Your task to perform on an android device: open the mobile data screen to see how much data has been used Image 0: 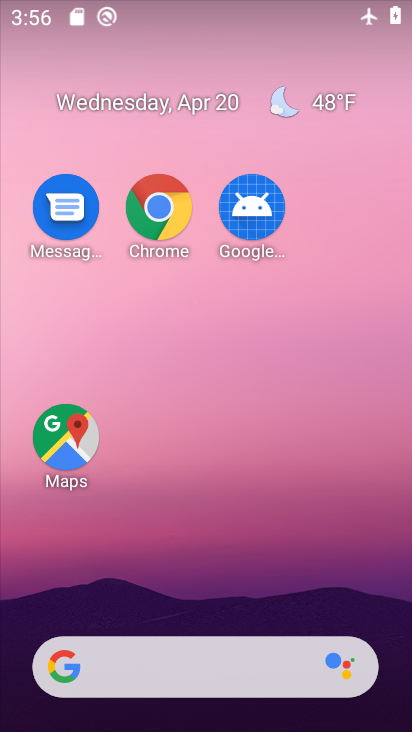
Step 0: click (205, 293)
Your task to perform on an android device: open the mobile data screen to see how much data has been used Image 1: 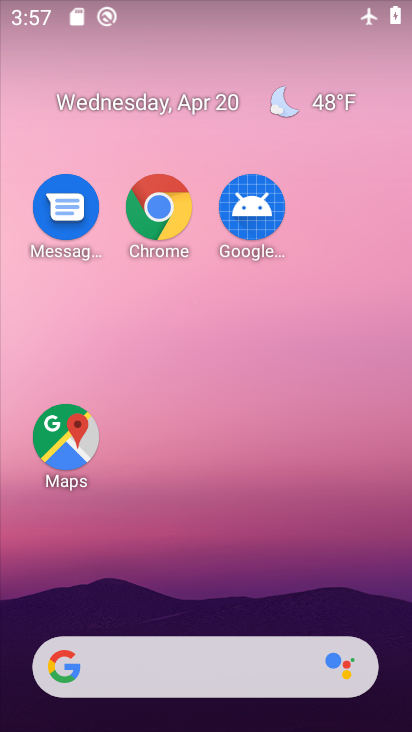
Step 1: drag from (266, 486) to (278, 325)
Your task to perform on an android device: open the mobile data screen to see how much data has been used Image 2: 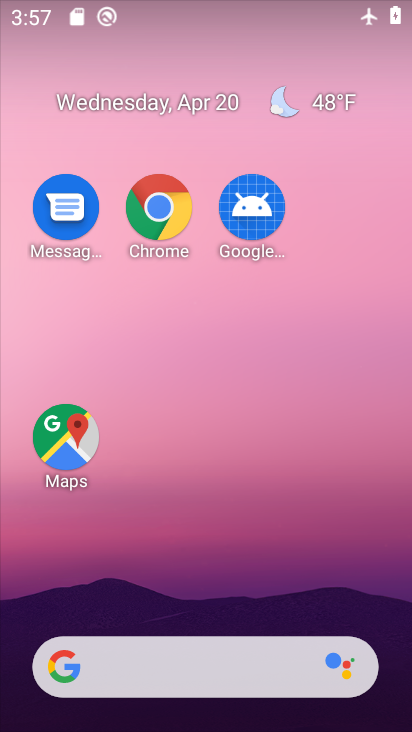
Step 2: drag from (249, 489) to (255, 245)
Your task to perform on an android device: open the mobile data screen to see how much data has been used Image 3: 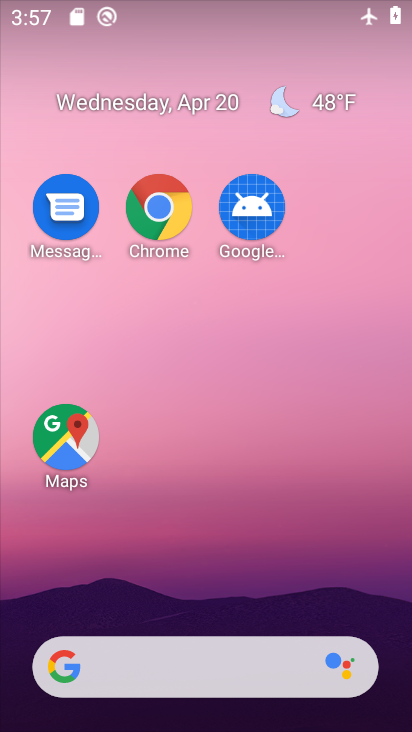
Step 3: drag from (259, 577) to (278, 188)
Your task to perform on an android device: open the mobile data screen to see how much data has been used Image 4: 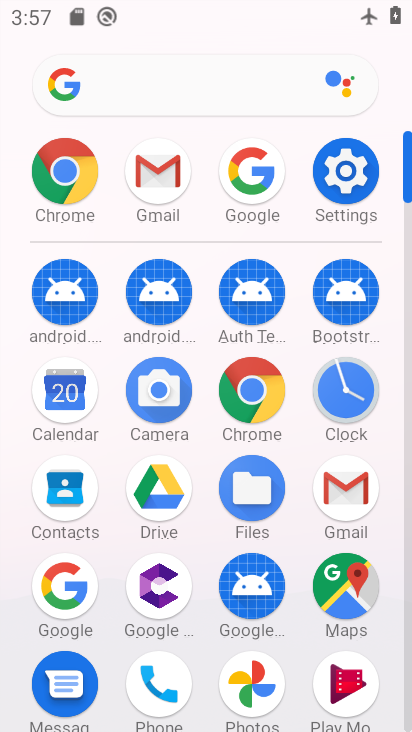
Step 4: click (334, 188)
Your task to perform on an android device: open the mobile data screen to see how much data has been used Image 5: 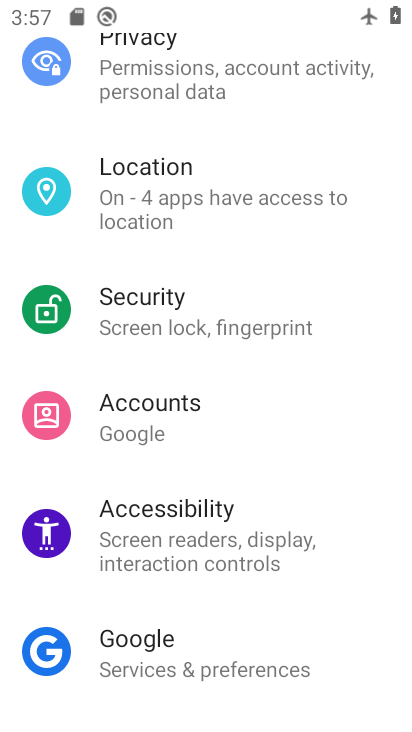
Step 5: drag from (240, 173) to (192, 704)
Your task to perform on an android device: open the mobile data screen to see how much data has been used Image 6: 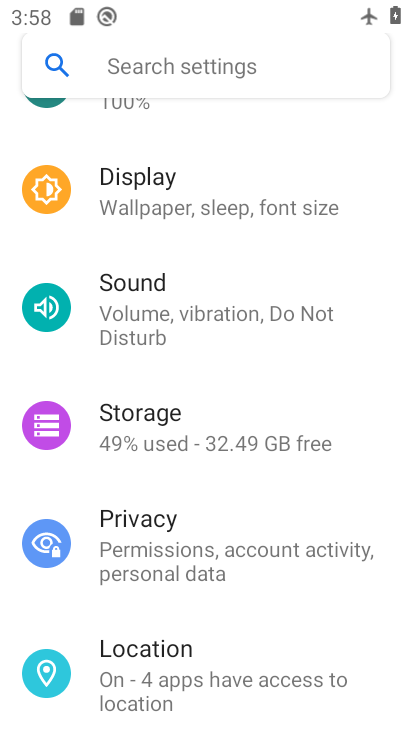
Step 6: drag from (218, 196) to (229, 588)
Your task to perform on an android device: open the mobile data screen to see how much data has been used Image 7: 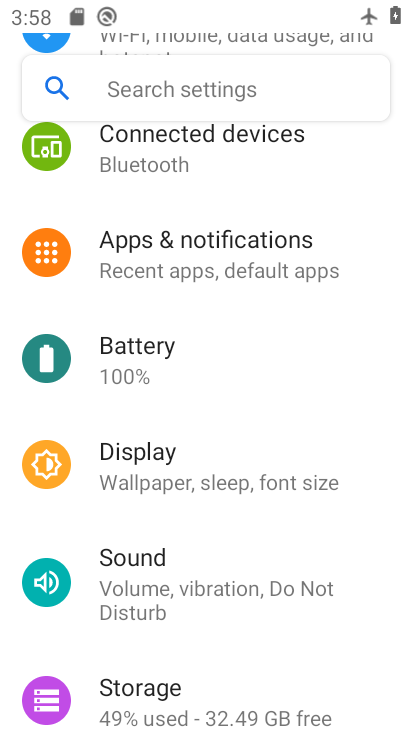
Step 7: drag from (237, 377) to (230, 640)
Your task to perform on an android device: open the mobile data screen to see how much data has been used Image 8: 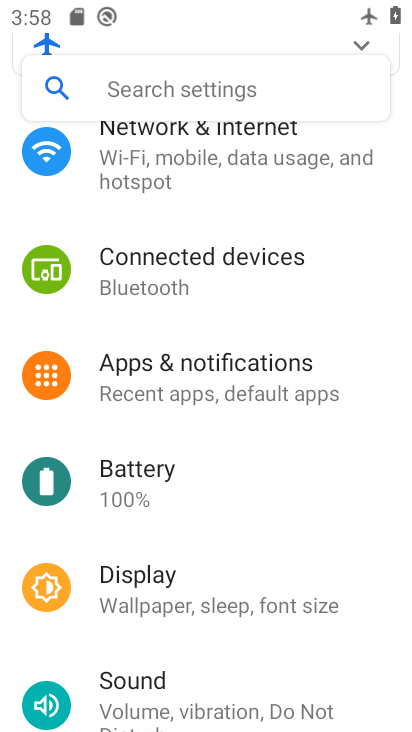
Step 8: drag from (219, 310) to (210, 699)
Your task to perform on an android device: open the mobile data screen to see how much data has been used Image 9: 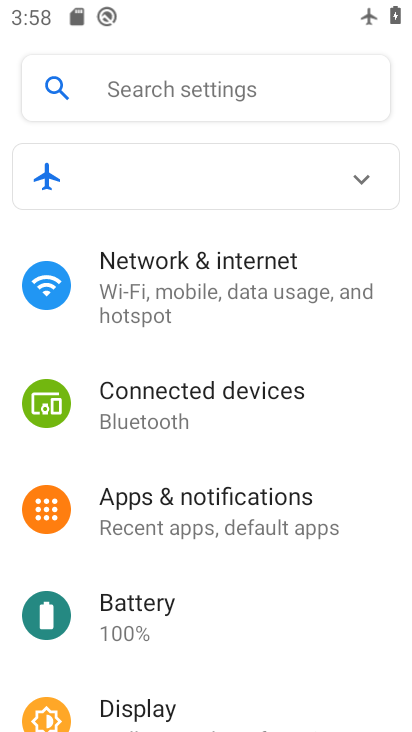
Step 9: drag from (201, 513) to (219, 371)
Your task to perform on an android device: open the mobile data screen to see how much data has been used Image 10: 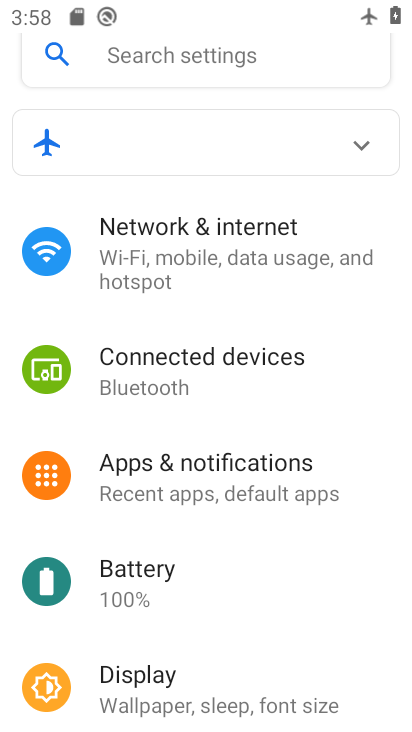
Step 10: click (237, 258)
Your task to perform on an android device: open the mobile data screen to see how much data has been used Image 11: 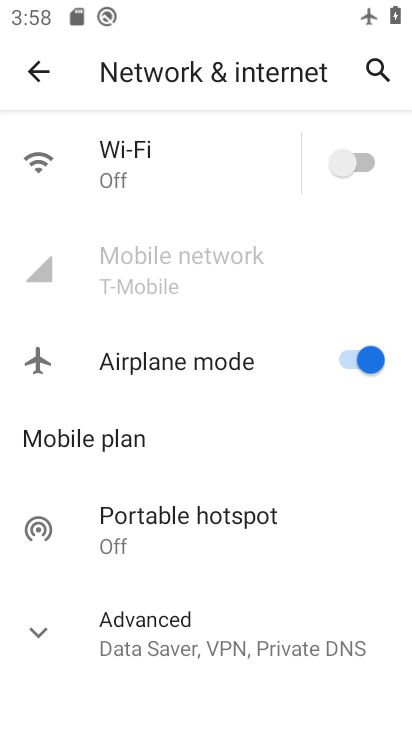
Step 11: click (240, 408)
Your task to perform on an android device: open the mobile data screen to see how much data has been used Image 12: 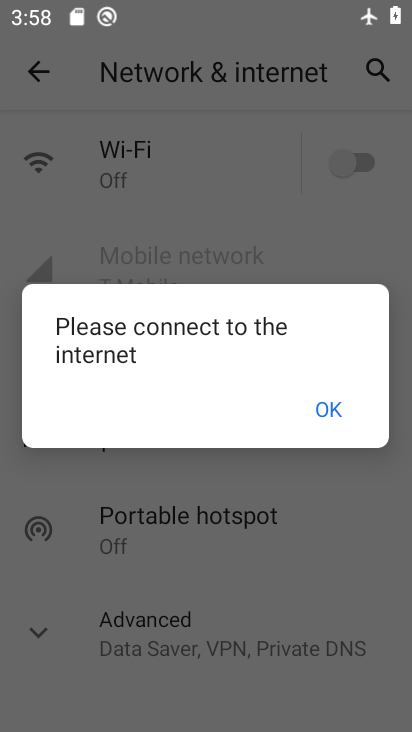
Step 12: click (331, 402)
Your task to perform on an android device: open the mobile data screen to see how much data has been used Image 13: 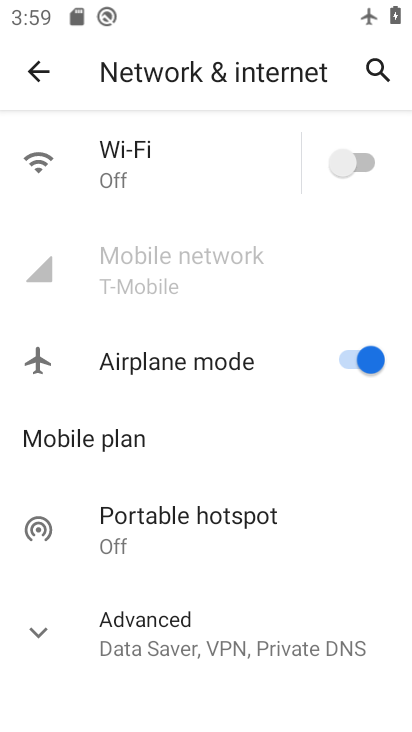
Step 13: task complete